Your task to perform on an android device: Open Google Maps Image 0: 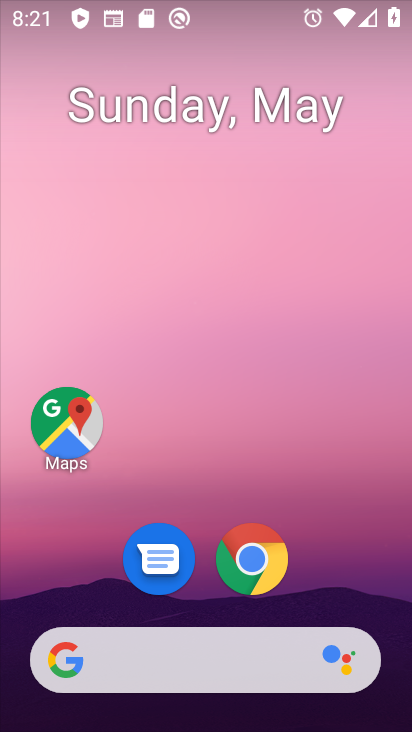
Step 0: press home button
Your task to perform on an android device: Open Google Maps Image 1: 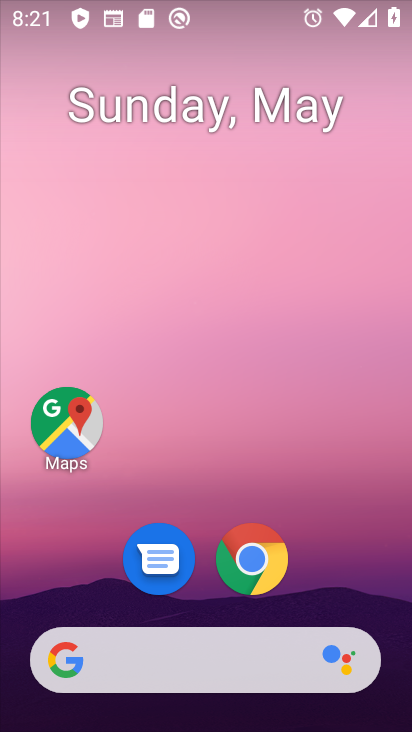
Step 1: click (52, 418)
Your task to perform on an android device: Open Google Maps Image 2: 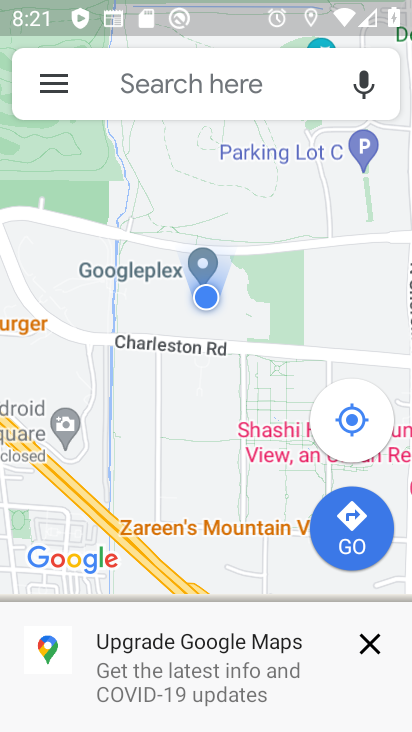
Step 2: task complete